Your task to perform on an android device: toggle priority inbox in the gmail app Image 0: 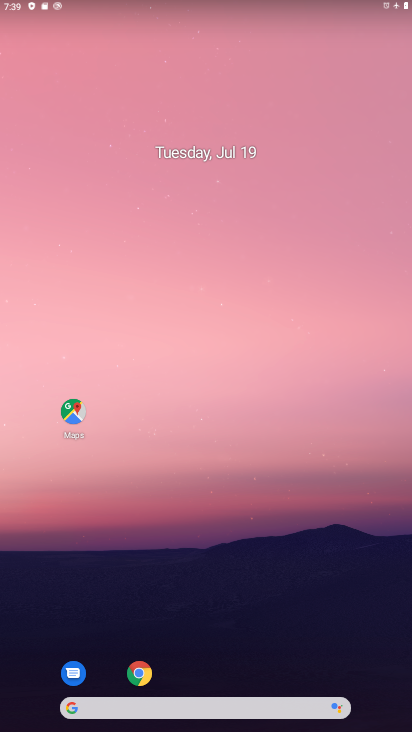
Step 0: drag from (192, 520) to (174, 37)
Your task to perform on an android device: toggle priority inbox in the gmail app Image 1: 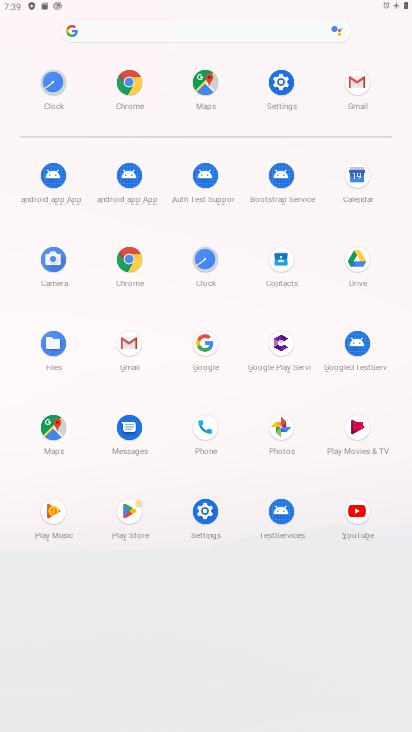
Step 1: click (362, 82)
Your task to perform on an android device: toggle priority inbox in the gmail app Image 2: 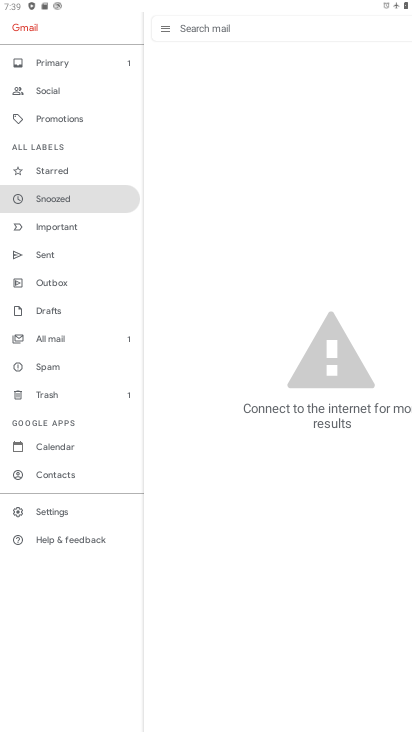
Step 2: click (50, 512)
Your task to perform on an android device: toggle priority inbox in the gmail app Image 3: 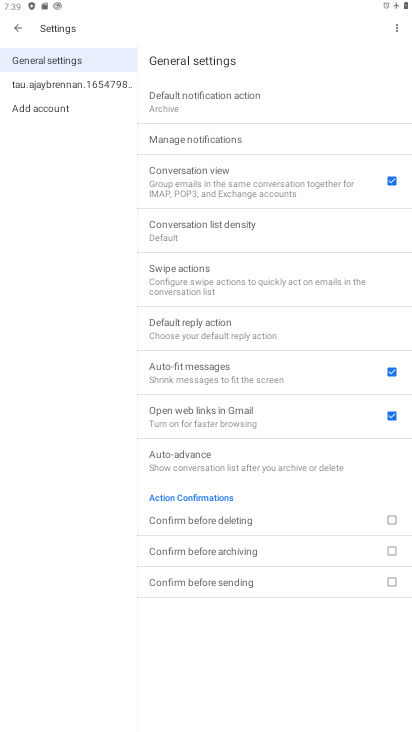
Step 3: click (34, 81)
Your task to perform on an android device: toggle priority inbox in the gmail app Image 4: 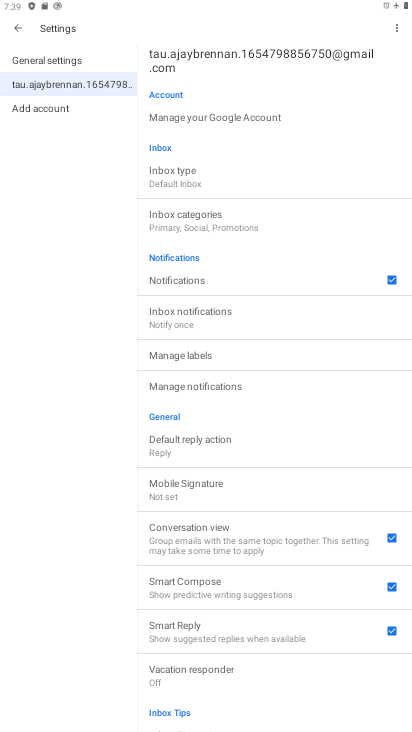
Step 4: click (173, 182)
Your task to perform on an android device: toggle priority inbox in the gmail app Image 5: 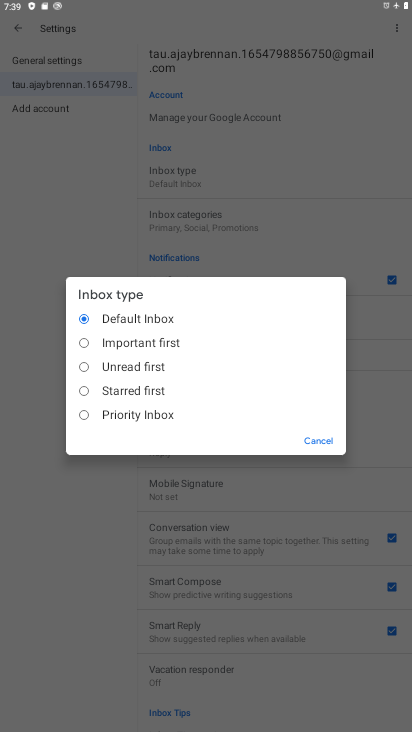
Step 5: click (102, 405)
Your task to perform on an android device: toggle priority inbox in the gmail app Image 6: 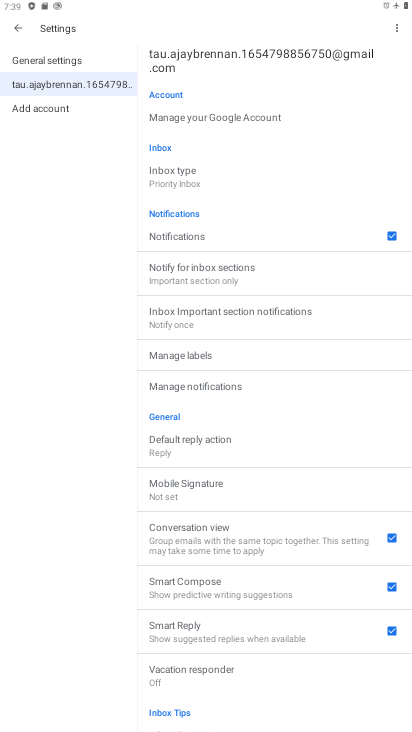
Step 6: task complete